Your task to perform on an android device: uninstall "Google Find My Device" Image 0: 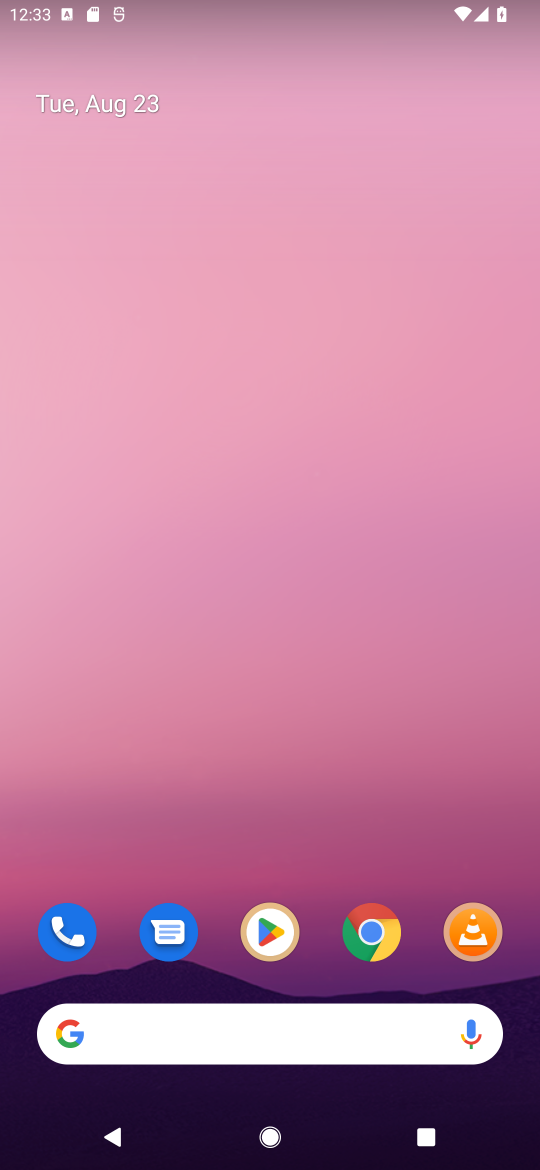
Step 0: click (264, 939)
Your task to perform on an android device: uninstall "Google Find My Device" Image 1: 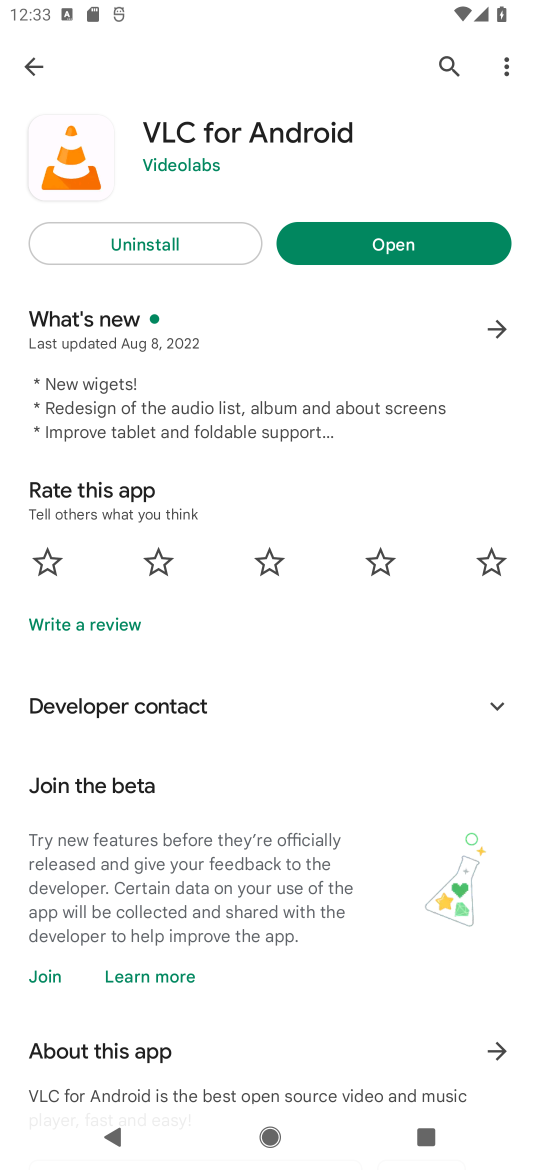
Step 1: click (455, 54)
Your task to perform on an android device: uninstall "Google Find My Device" Image 2: 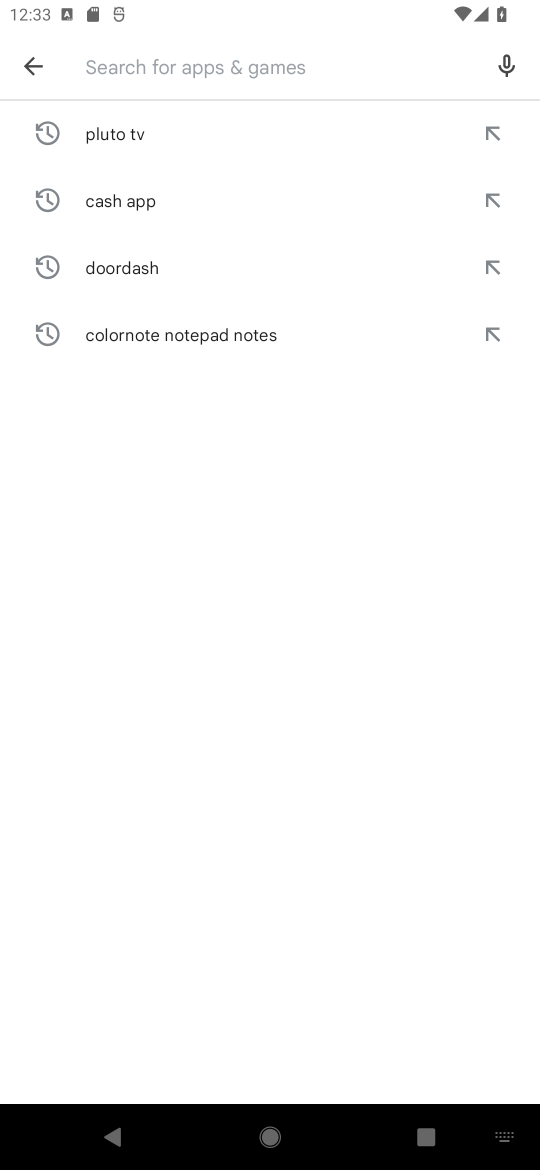
Step 2: click (169, 71)
Your task to perform on an android device: uninstall "Google Find My Device" Image 3: 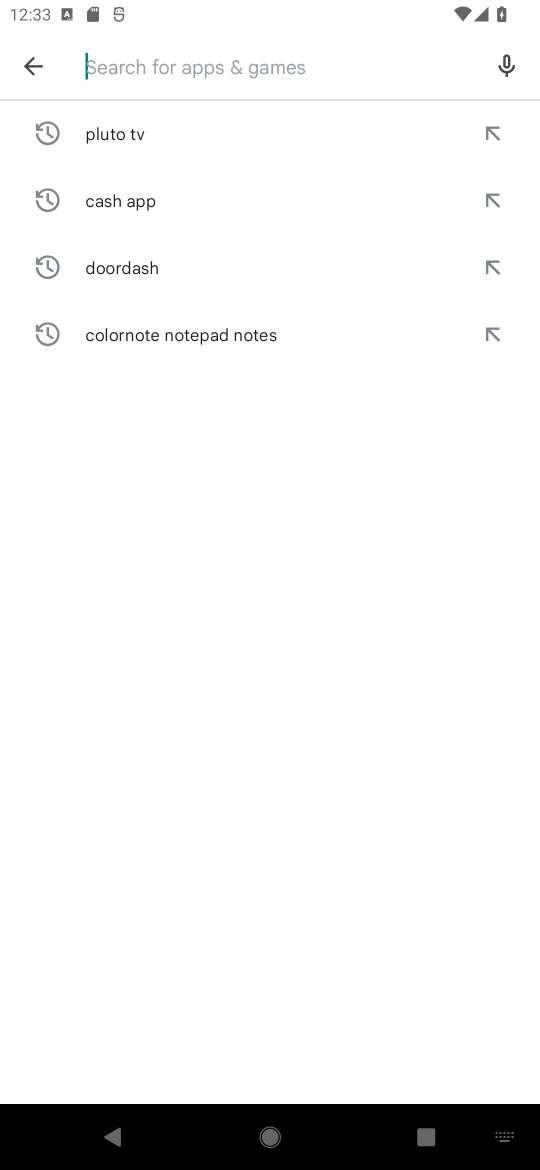
Step 3: type "Google Find My Device"
Your task to perform on an android device: uninstall "Google Find My Device" Image 4: 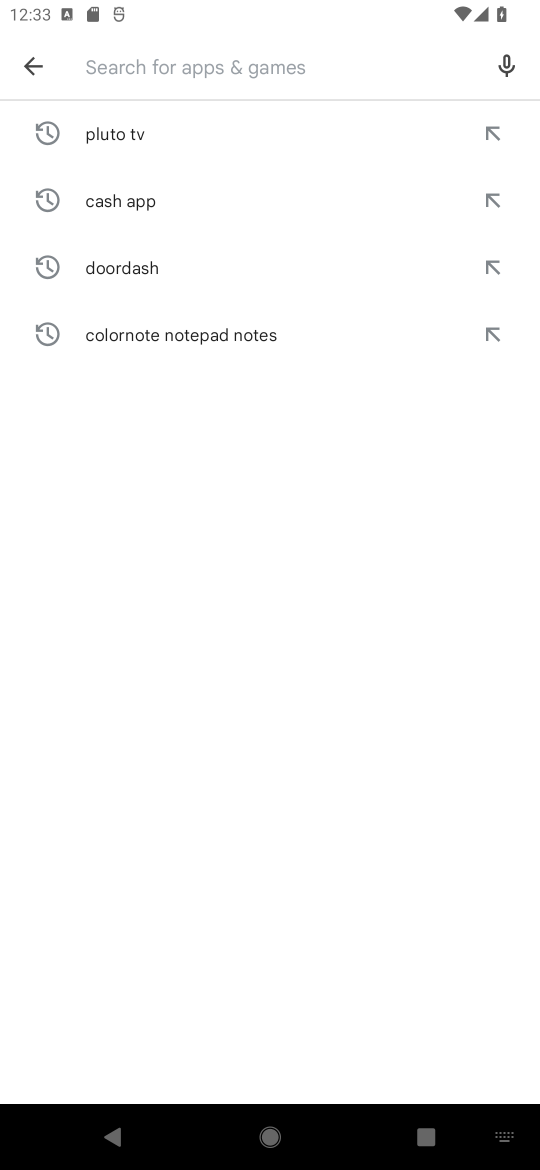
Step 4: click (305, 695)
Your task to perform on an android device: uninstall "Google Find My Device" Image 5: 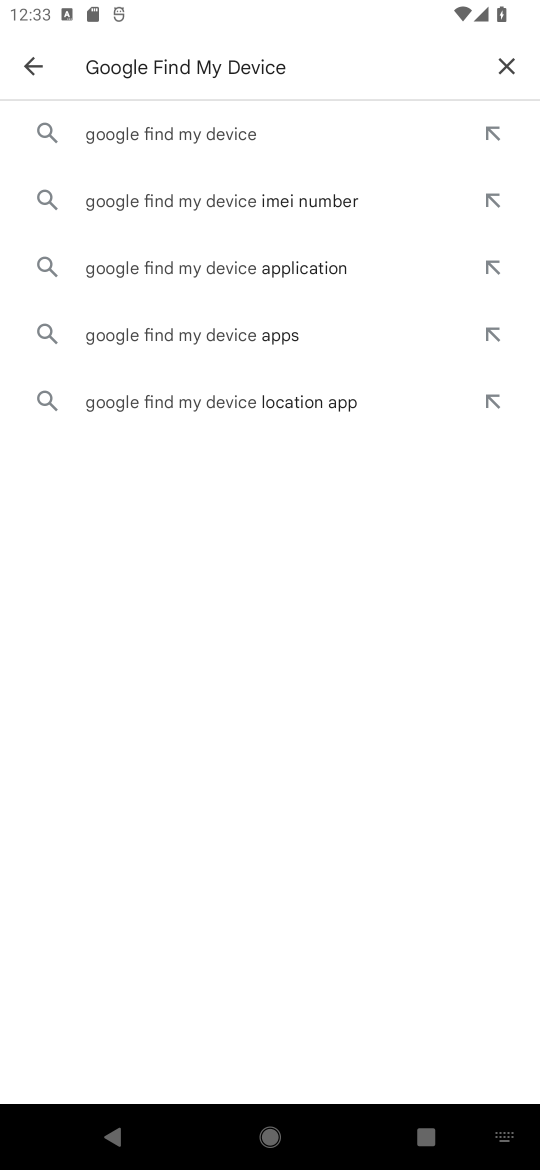
Step 5: click (203, 128)
Your task to perform on an android device: uninstall "Google Find My Device" Image 6: 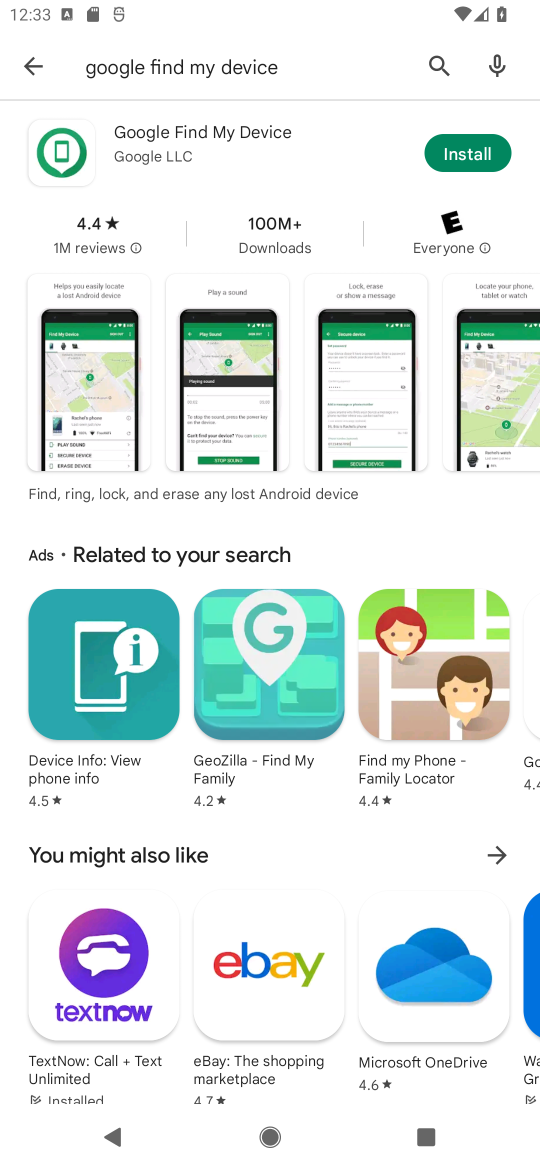
Step 6: task complete